Your task to perform on an android device: turn off notifications in google photos Image 0: 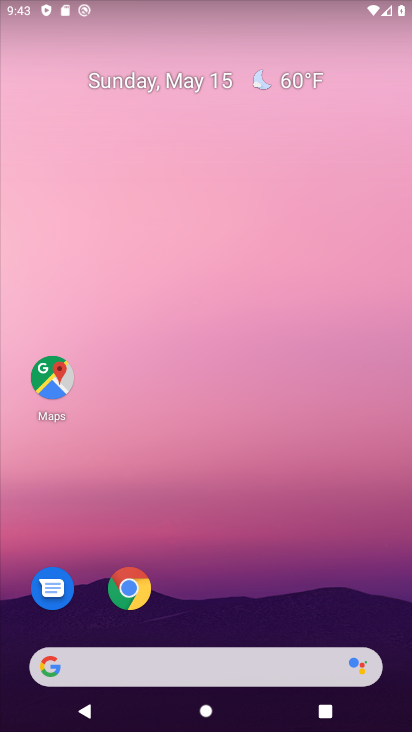
Step 0: drag from (336, 603) to (317, 457)
Your task to perform on an android device: turn off notifications in google photos Image 1: 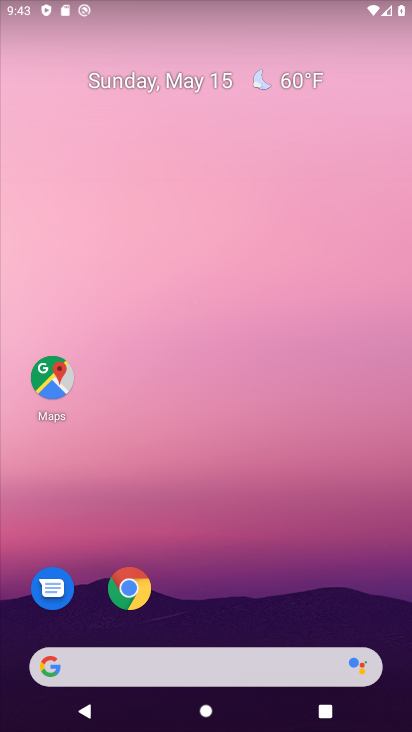
Step 1: drag from (262, 620) to (231, 78)
Your task to perform on an android device: turn off notifications in google photos Image 2: 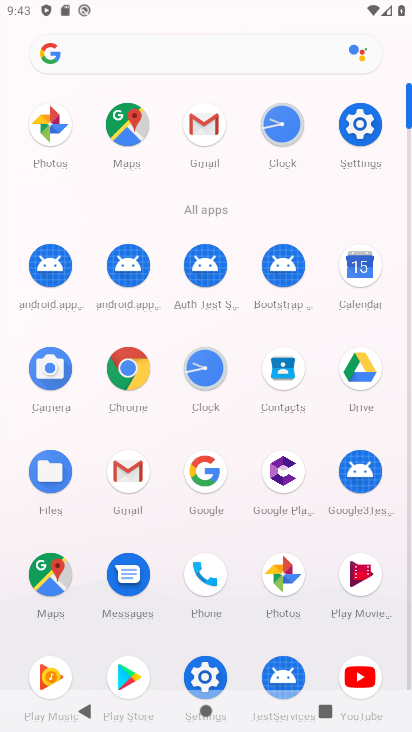
Step 2: click (59, 125)
Your task to perform on an android device: turn off notifications in google photos Image 3: 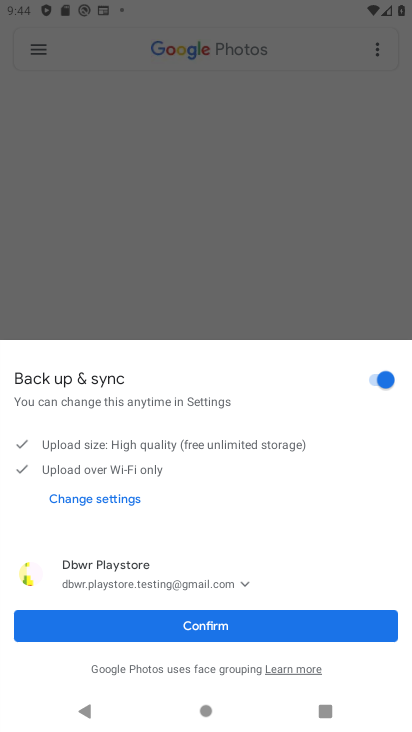
Step 3: press home button
Your task to perform on an android device: turn off notifications in google photos Image 4: 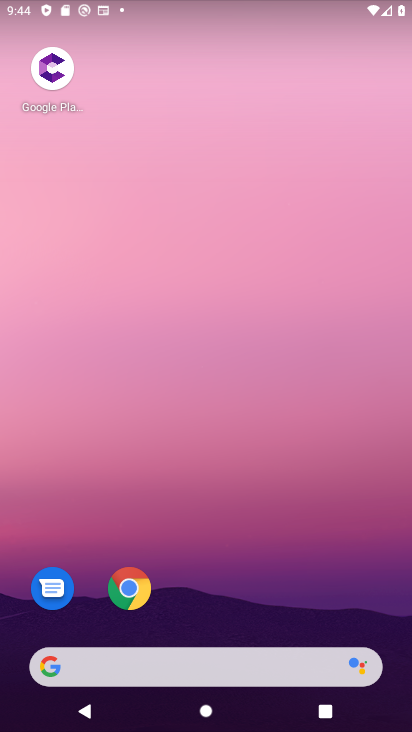
Step 4: drag from (293, 601) to (213, 159)
Your task to perform on an android device: turn off notifications in google photos Image 5: 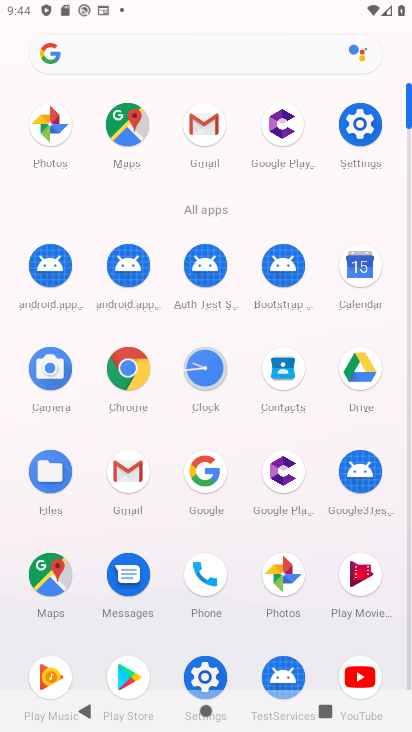
Step 5: click (63, 116)
Your task to perform on an android device: turn off notifications in google photos Image 6: 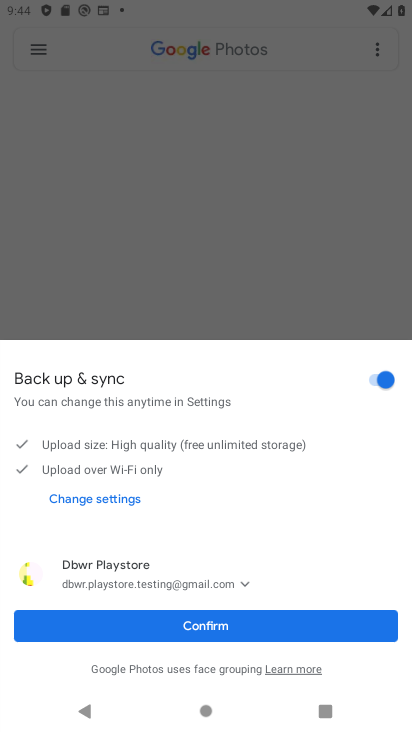
Step 6: click (266, 633)
Your task to perform on an android device: turn off notifications in google photos Image 7: 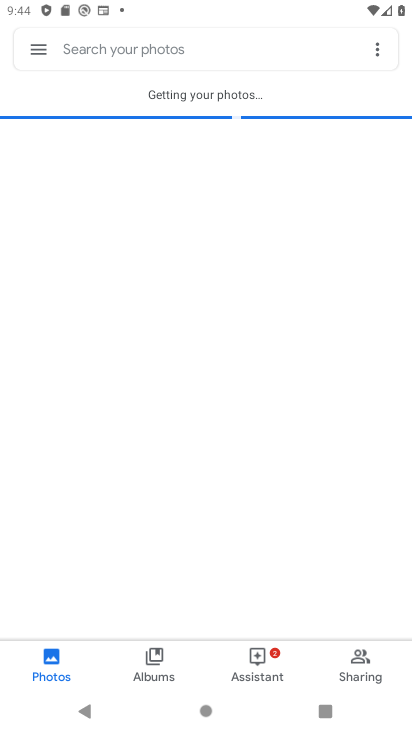
Step 7: click (36, 50)
Your task to perform on an android device: turn off notifications in google photos Image 8: 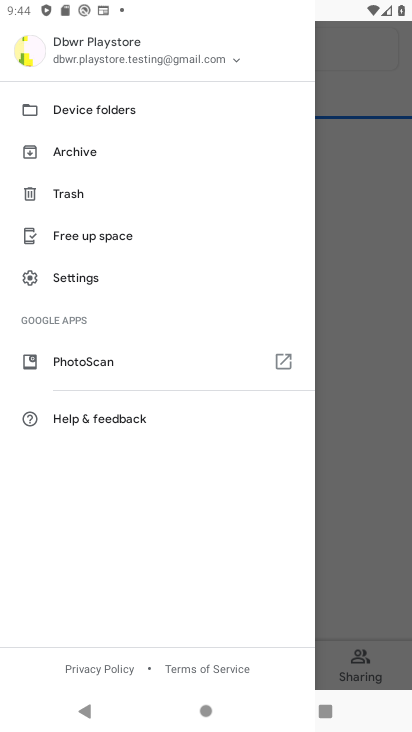
Step 8: click (116, 277)
Your task to perform on an android device: turn off notifications in google photos Image 9: 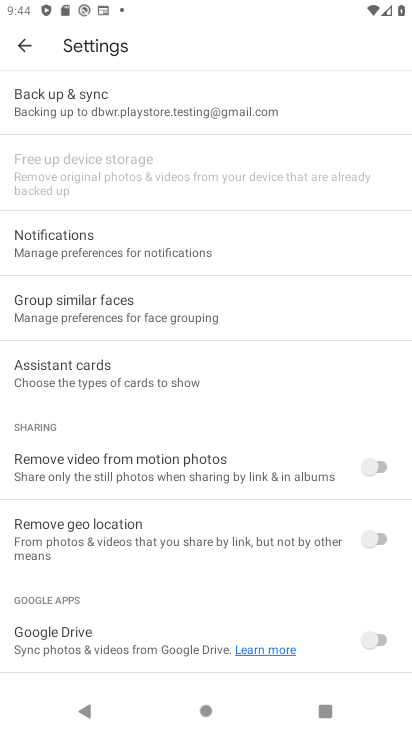
Step 9: click (143, 247)
Your task to perform on an android device: turn off notifications in google photos Image 10: 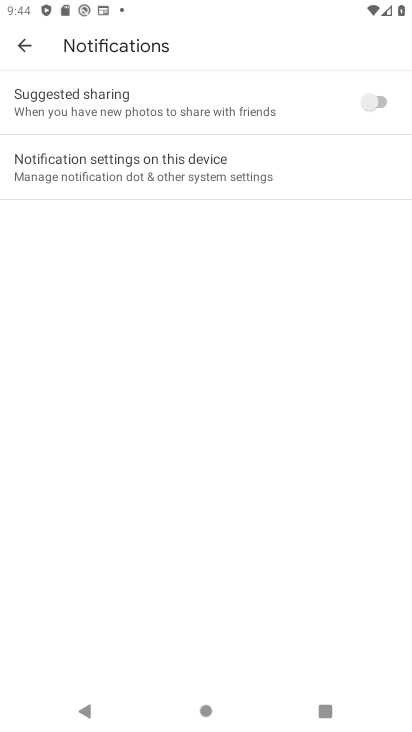
Step 10: click (327, 166)
Your task to perform on an android device: turn off notifications in google photos Image 11: 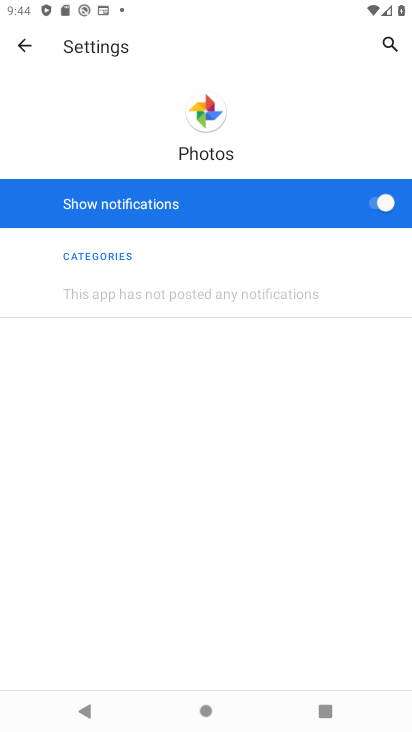
Step 11: click (388, 200)
Your task to perform on an android device: turn off notifications in google photos Image 12: 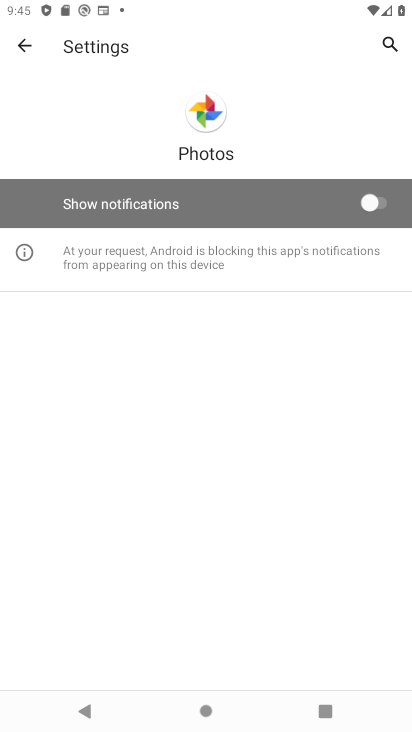
Step 12: task complete